Your task to perform on an android device: star an email in the gmail app Image 0: 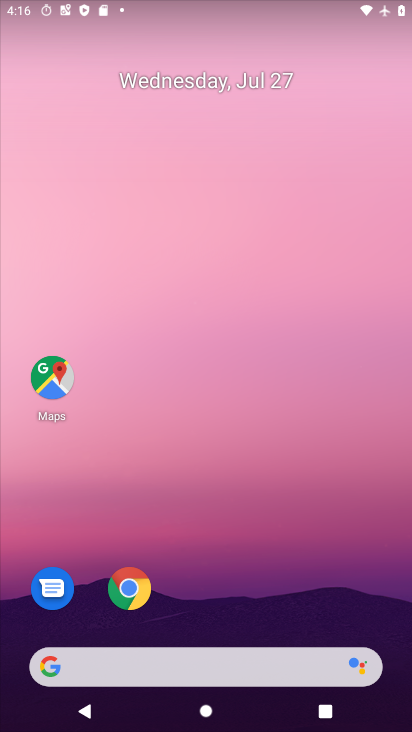
Step 0: press home button
Your task to perform on an android device: star an email in the gmail app Image 1: 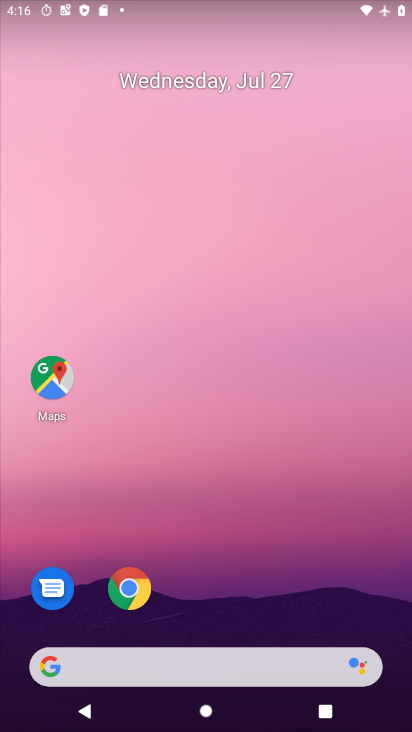
Step 1: drag from (251, 527) to (288, 197)
Your task to perform on an android device: star an email in the gmail app Image 2: 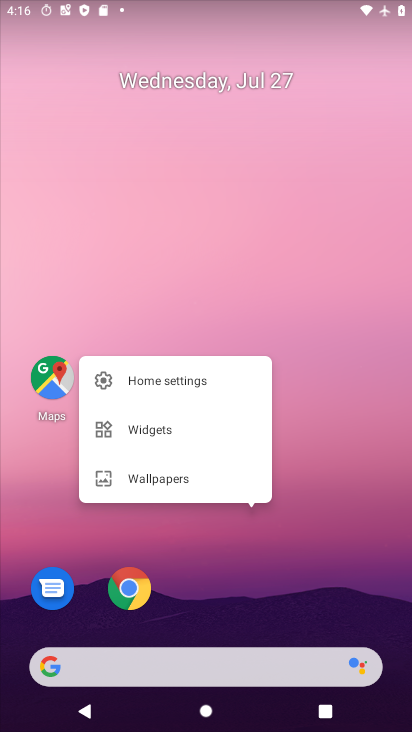
Step 2: click (338, 520)
Your task to perform on an android device: star an email in the gmail app Image 3: 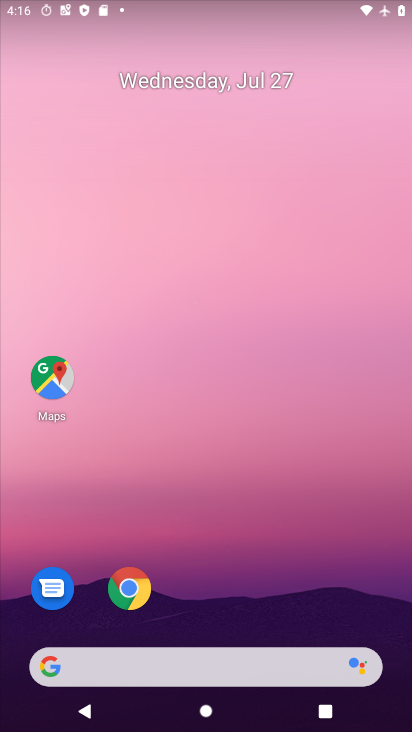
Step 3: drag from (338, 520) to (285, 135)
Your task to perform on an android device: star an email in the gmail app Image 4: 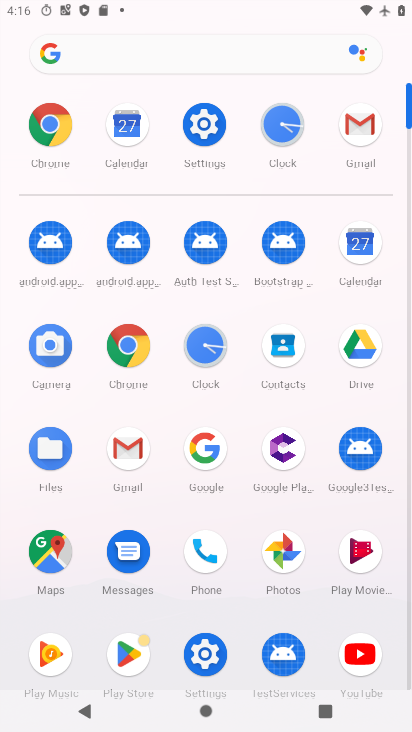
Step 4: click (345, 121)
Your task to perform on an android device: star an email in the gmail app Image 5: 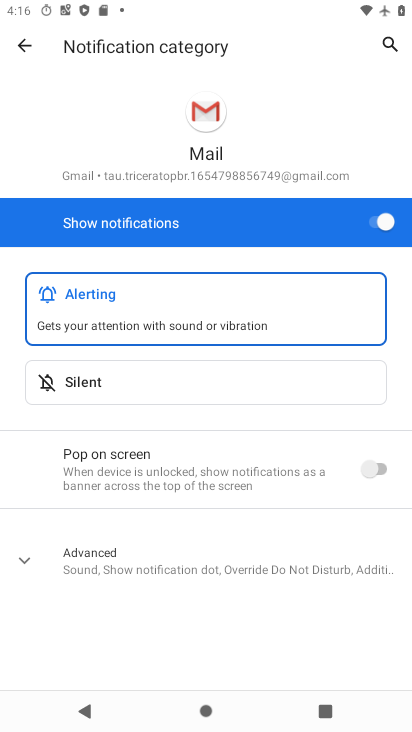
Step 5: click (24, 52)
Your task to perform on an android device: star an email in the gmail app Image 6: 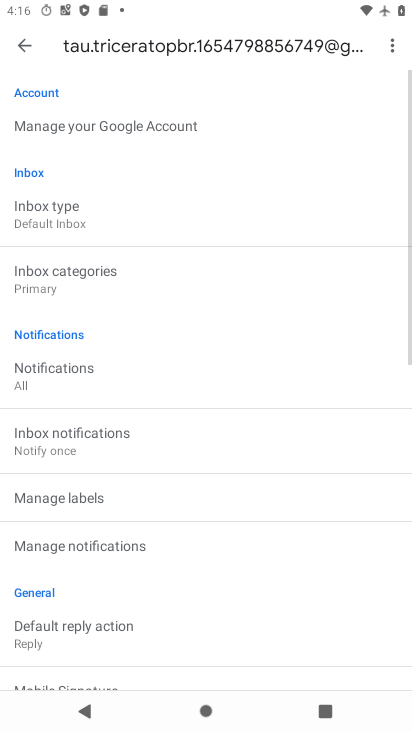
Step 6: click (24, 52)
Your task to perform on an android device: star an email in the gmail app Image 7: 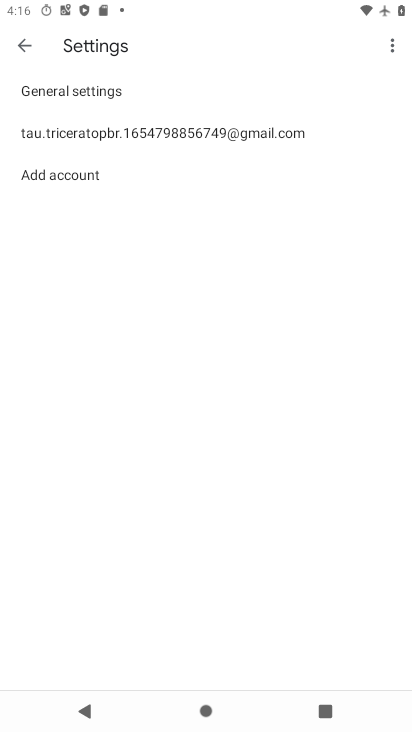
Step 7: click (24, 52)
Your task to perform on an android device: star an email in the gmail app Image 8: 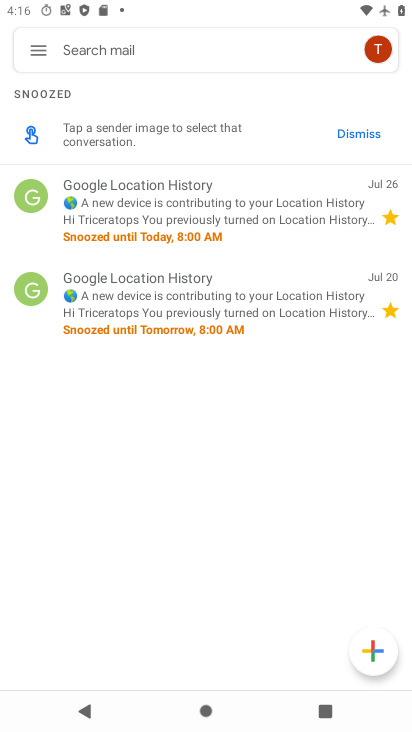
Step 8: task complete